Your task to perform on an android device: find photos in the google photos app Image 0: 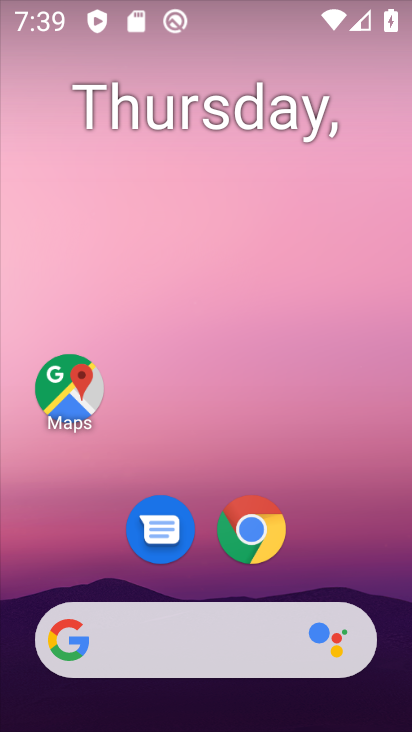
Step 0: drag from (205, 566) to (222, 231)
Your task to perform on an android device: find photos in the google photos app Image 1: 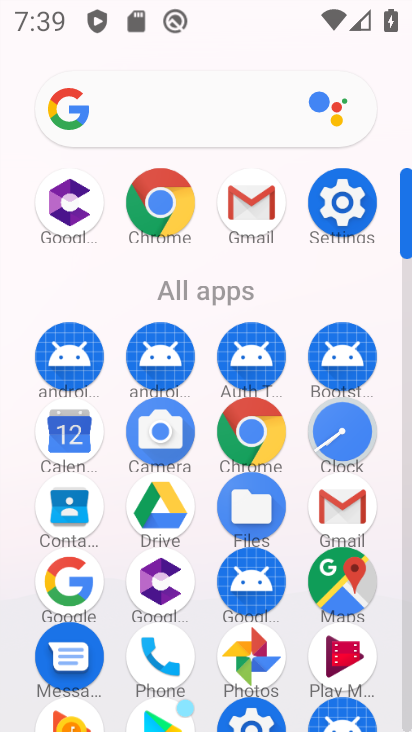
Step 1: click (249, 650)
Your task to perform on an android device: find photos in the google photos app Image 2: 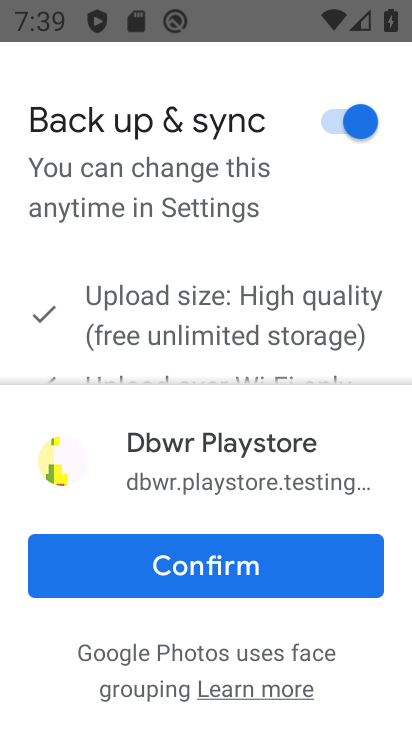
Step 2: click (221, 593)
Your task to perform on an android device: find photos in the google photos app Image 3: 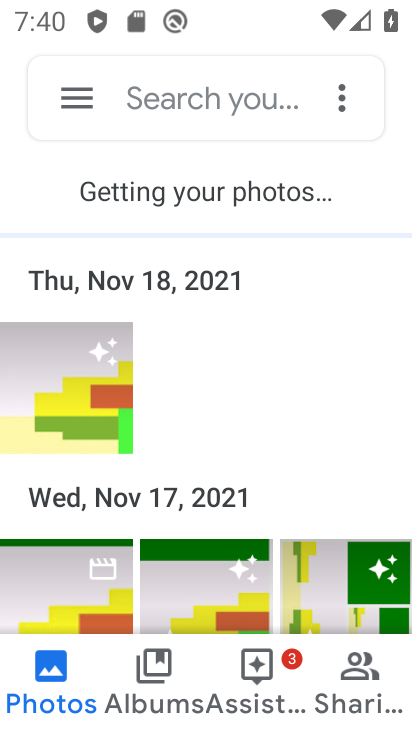
Step 3: task complete